Your task to perform on an android device: turn off priority inbox in the gmail app Image 0: 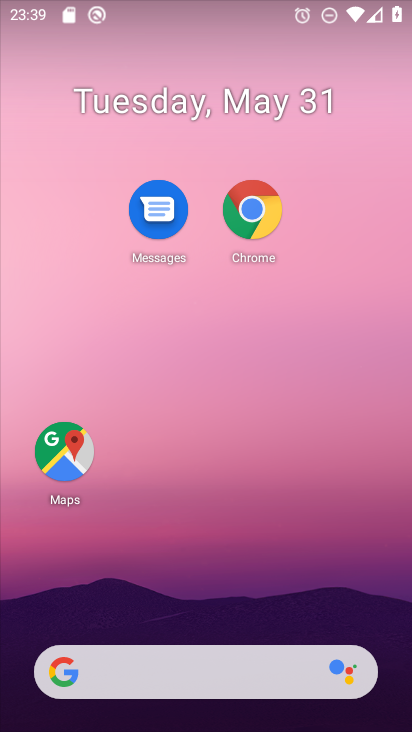
Step 0: drag from (204, 634) to (215, 80)
Your task to perform on an android device: turn off priority inbox in the gmail app Image 1: 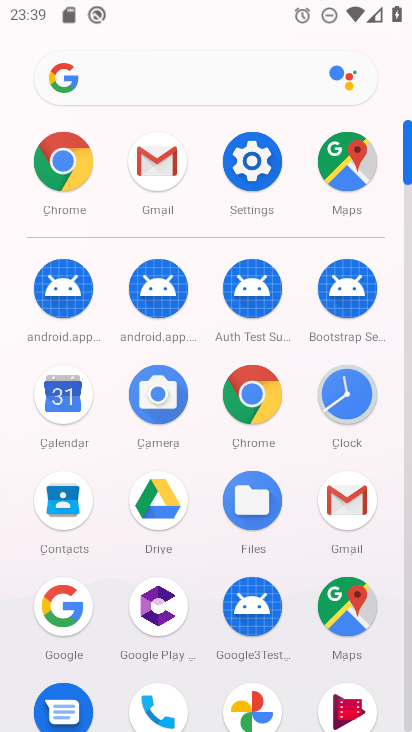
Step 1: click (159, 153)
Your task to perform on an android device: turn off priority inbox in the gmail app Image 2: 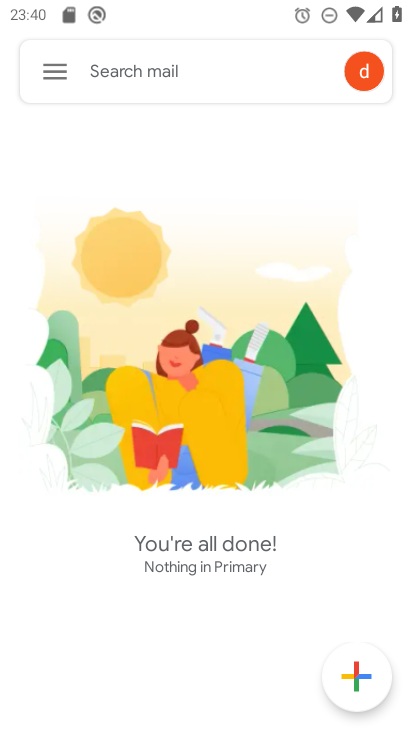
Step 2: click (52, 67)
Your task to perform on an android device: turn off priority inbox in the gmail app Image 3: 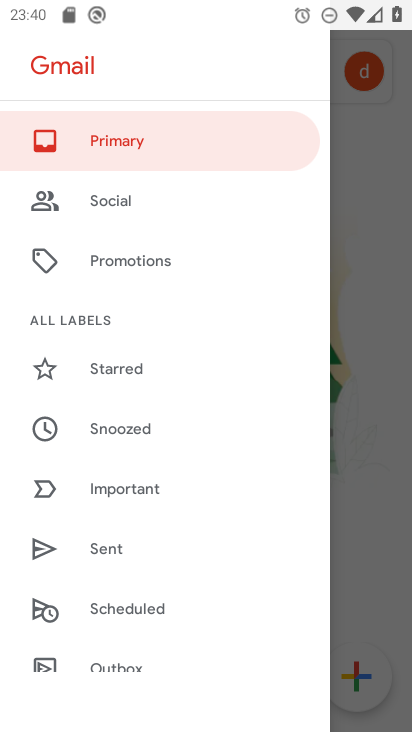
Step 3: drag from (159, 663) to (195, 31)
Your task to perform on an android device: turn off priority inbox in the gmail app Image 4: 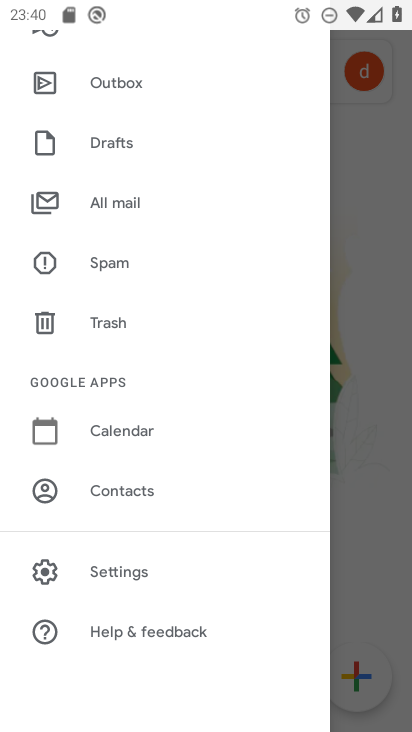
Step 4: click (74, 571)
Your task to perform on an android device: turn off priority inbox in the gmail app Image 5: 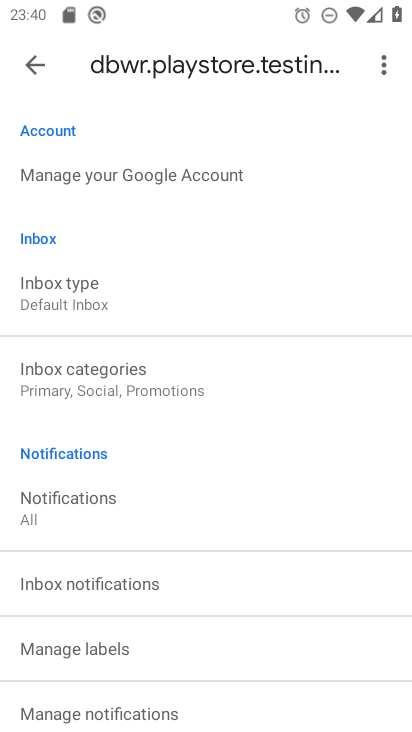
Step 5: click (120, 291)
Your task to perform on an android device: turn off priority inbox in the gmail app Image 6: 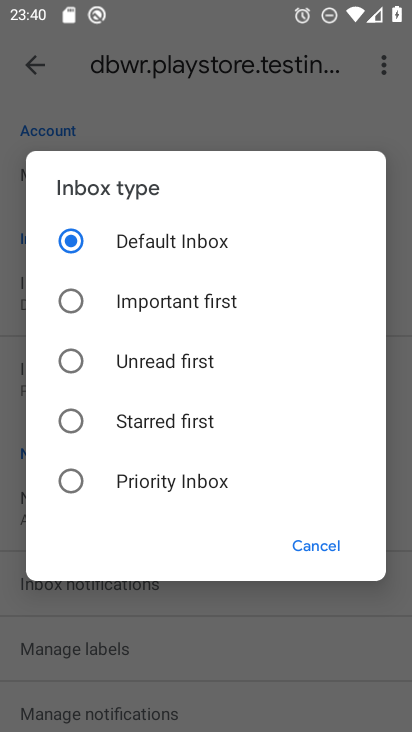
Step 6: click (74, 473)
Your task to perform on an android device: turn off priority inbox in the gmail app Image 7: 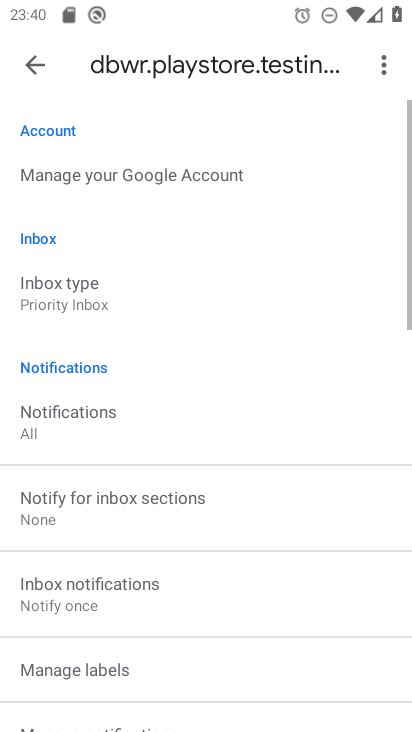
Step 7: click (74, 297)
Your task to perform on an android device: turn off priority inbox in the gmail app Image 8: 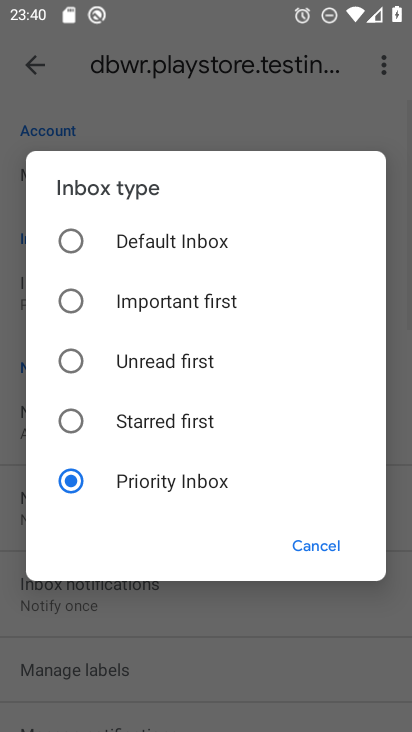
Step 8: click (68, 419)
Your task to perform on an android device: turn off priority inbox in the gmail app Image 9: 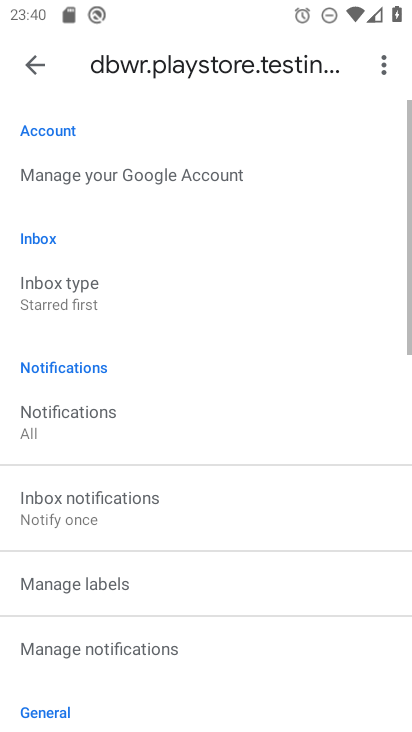
Step 9: task complete